Your task to perform on an android device: toggle translation in the chrome app Image 0: 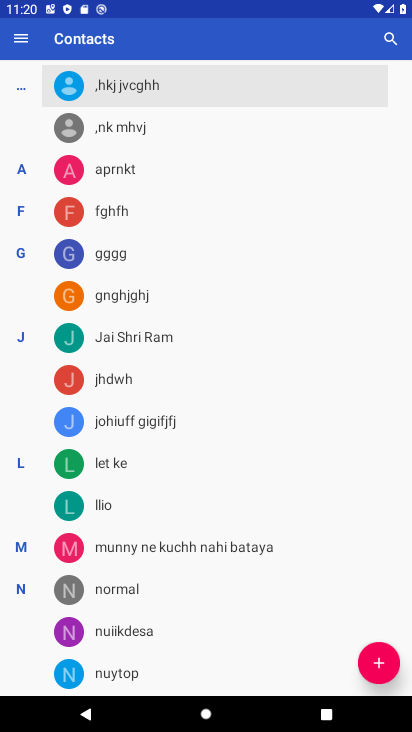
Step 0: press home button
Your task to perform on an android device: toggle translation in the chrome app Image 1: 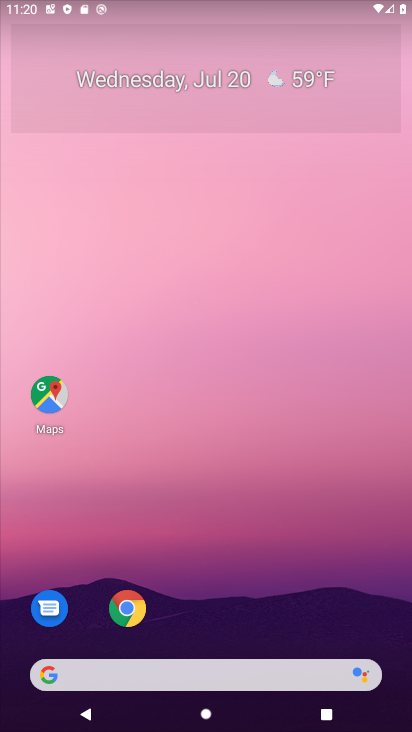
Step 1: drag from (342, 532) to (106, 30)
Your task to perform on an android device: toggle translation in the chrome app Image 2: 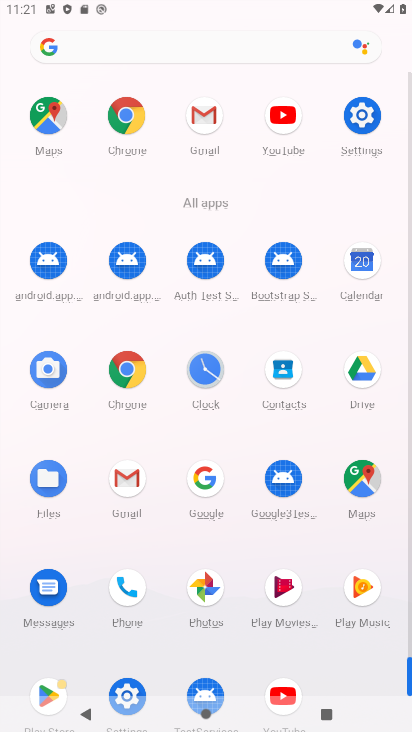
Step 2: click (133, 119)
Your task to perform on an android device: toggle translation in the chrome app Image 3: 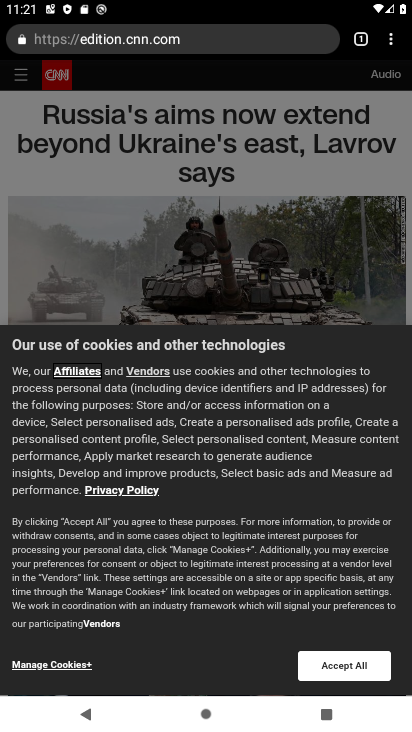
Step 3: drag from (398, 35) to (257, 429)
Your task to perform on an android device: toggle translation in the chrome app Image 4: 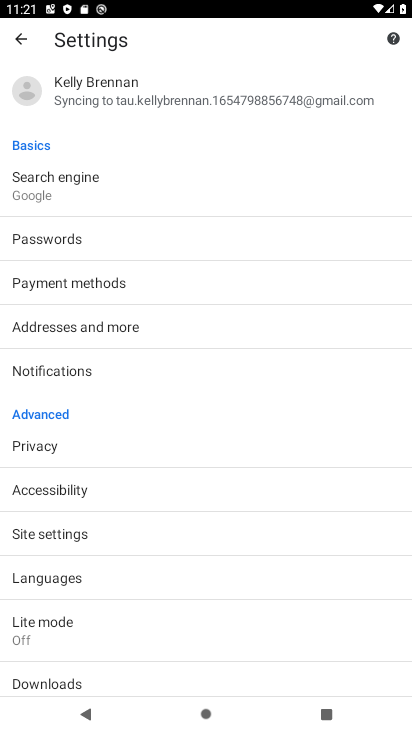
Step 4: click (78, 577)
Your task to perform on an android device: toggle translation in the chrome app Image 5: 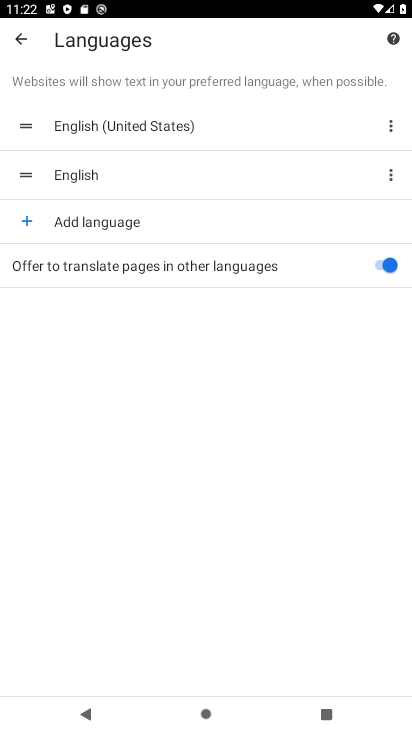
Step 5: click (377, 269)
Your task to perform on an android device: toggle translation in the chrome app Image 6: 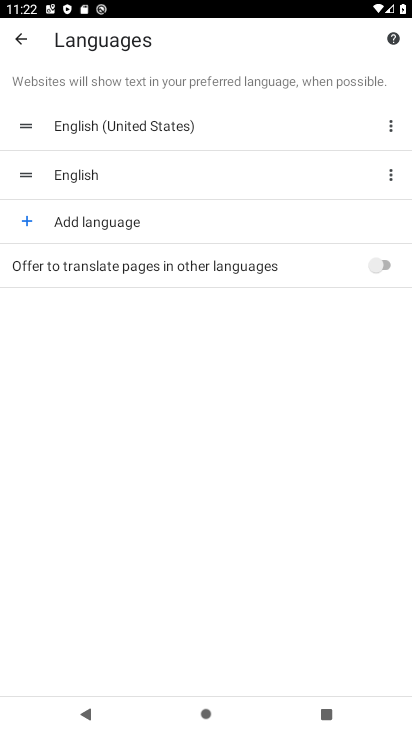
Step 6: task complete